Your task to perform on an android device: What is the recent news? Image 0: 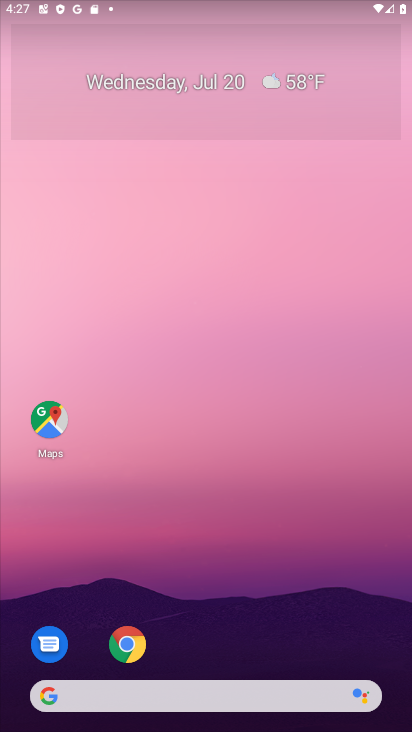
Step 0: press home button
Your task to perform on an android device: What is the recent news? Image 1: 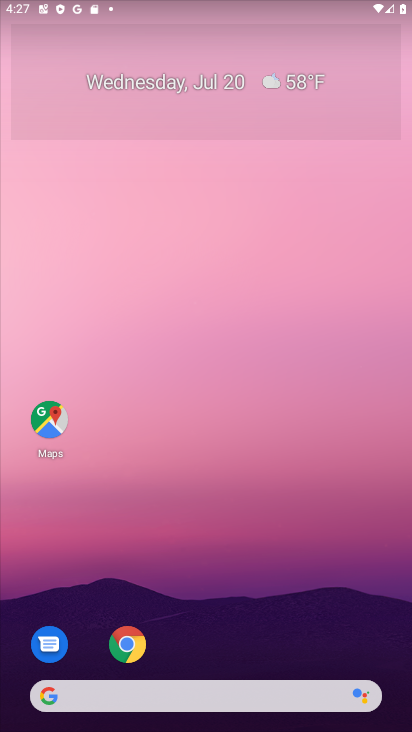
Step 1: click (56, 706)
Your task to perform on an android device: What is the recent news? Image 2: 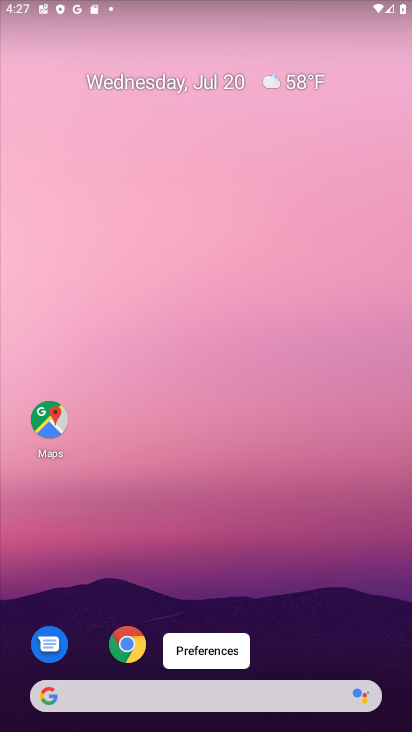
Step 2: click (46, 701)
Your task to perform on an android device: What is the recent news? Image 3: 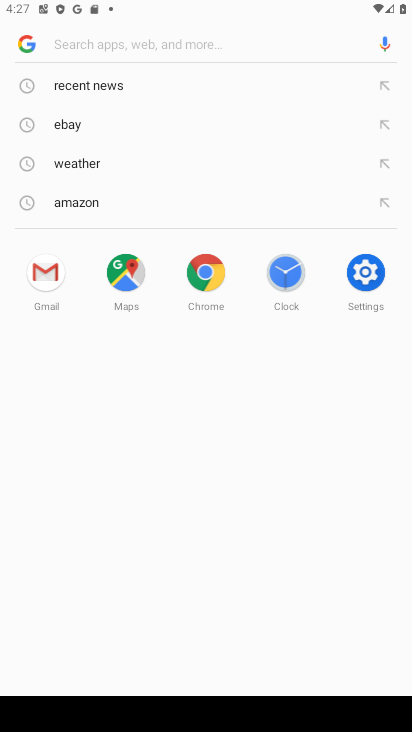
Step 3: click (88, 87)
Your task to perform on an android device: What is the recent news? Image 4: 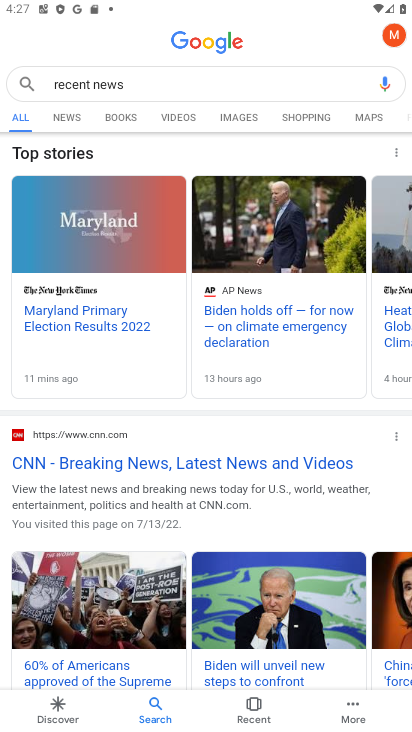
Step 4: task complete